Your task to perform on an android device: change the clock display to digital Image 0: 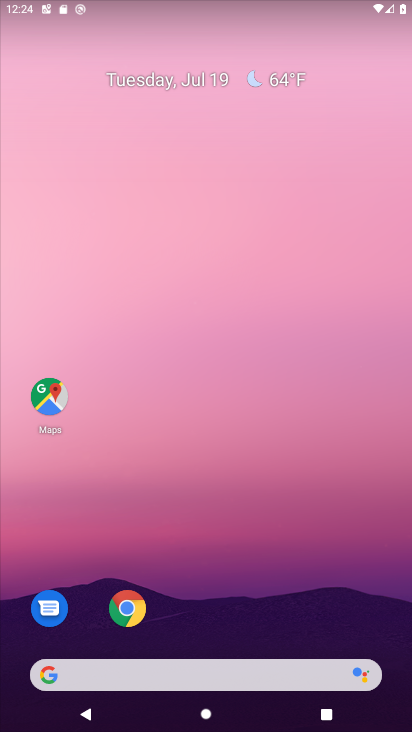
Step 0: drag from (247, 565) to (350, 8)
Your task to perform on an android device: change the clock display to digital Image 1: 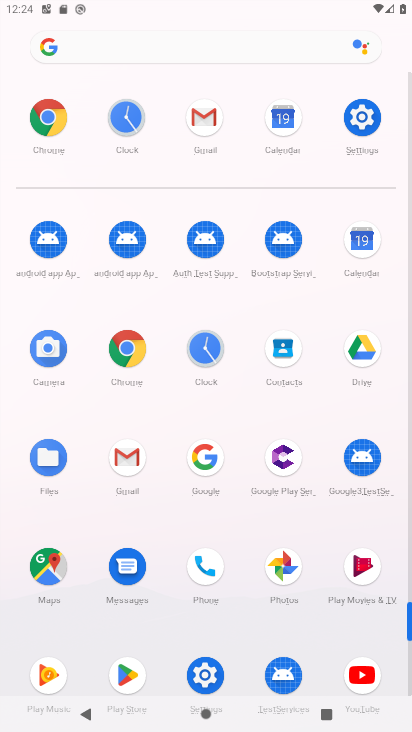
Step 1: click (205, 349)
Your task to perform on an android device: change the clock display to digital Image 2: 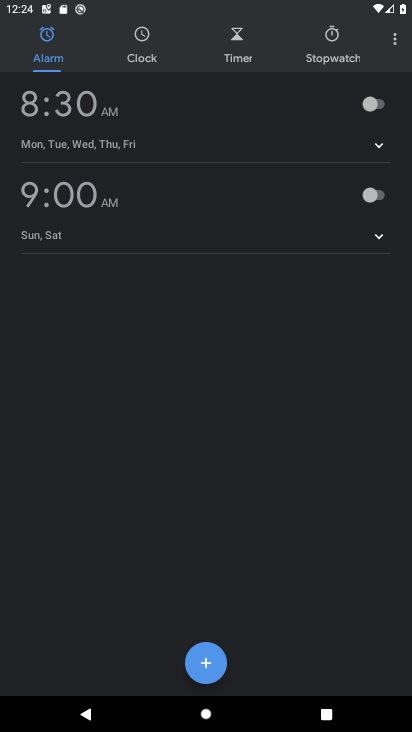
Step 2: click (403, 44)
Your task to perform on an android device: change the clock display to digital Image 3: 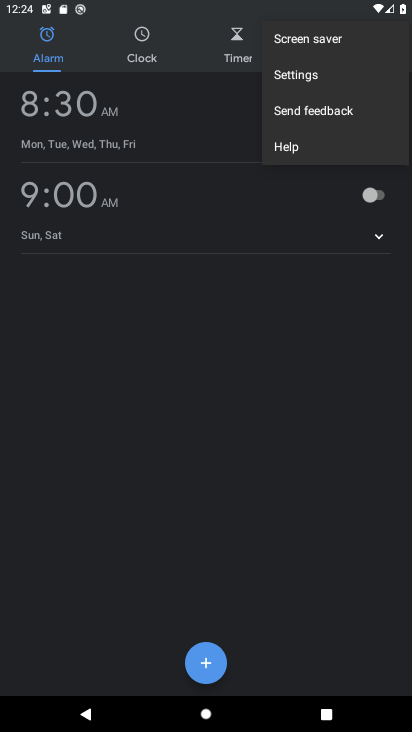
Step 3: click (313, 72)
Your task to perform on an android device: change the clock display to digital Image 4: 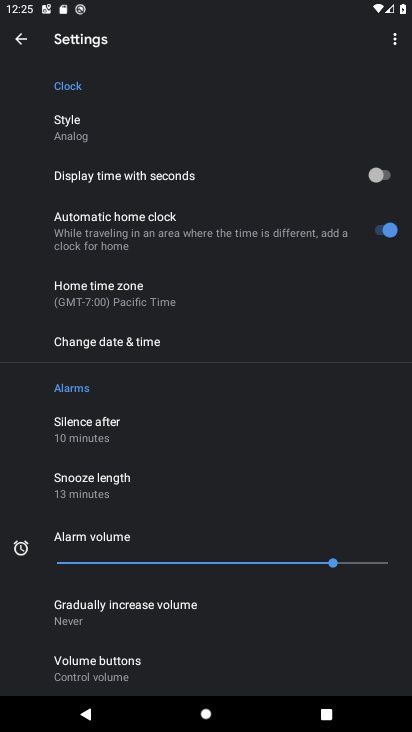
Step 4: click (189, 140)
Your task to perform on an android device: change the clock display to digital Image 5: 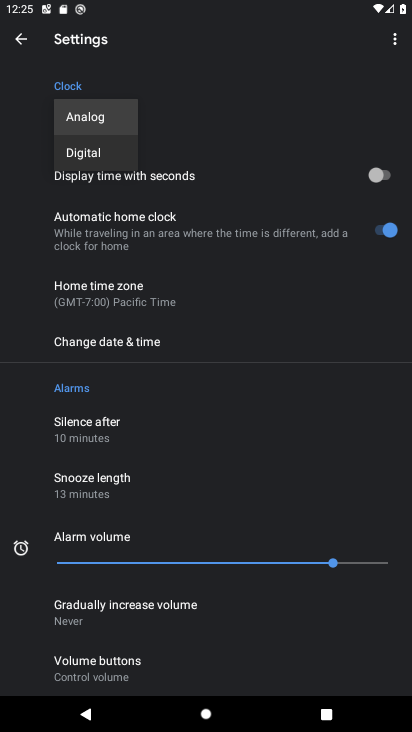
Step 5: click (97, 157)
Your task to perform on an android device: change the clock display to digital Image 6: 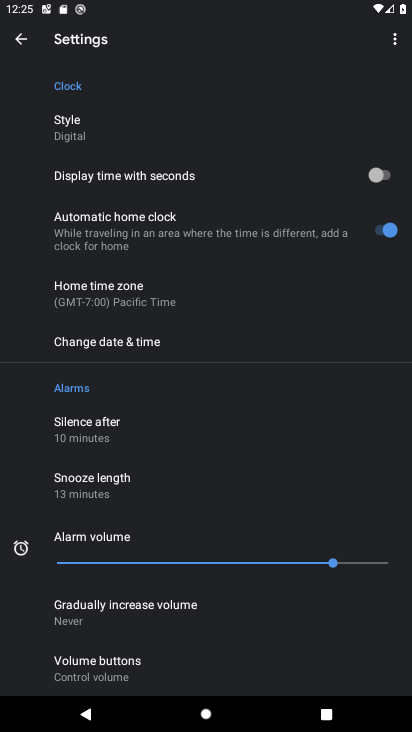
Step 6: task complete